Your task to perform on an android device: turn off picture-in-picture Image 0: 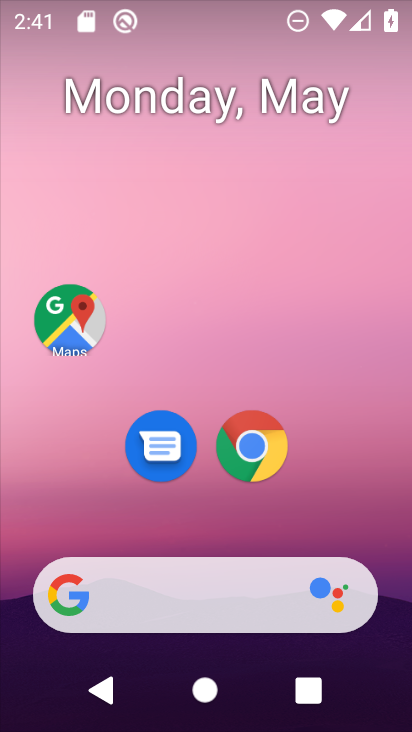
Step 0: click (250, 441)
Your task to perform on an android device: turn off picture-in-picture Image 1: 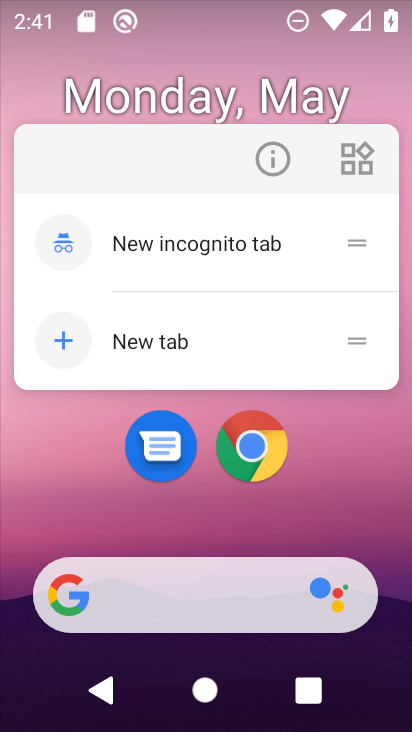
Step 1: click (268, 146)
Your task to perform on an android device: turn off picture-in-picture Image 2: 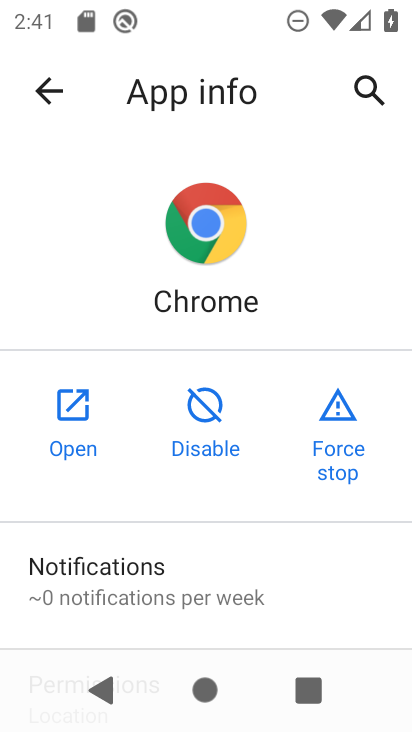
Step 2: drag from (222, 647) to (195, 262)
Your task to perform on an android device: turn off picture-in-picture Image 3: 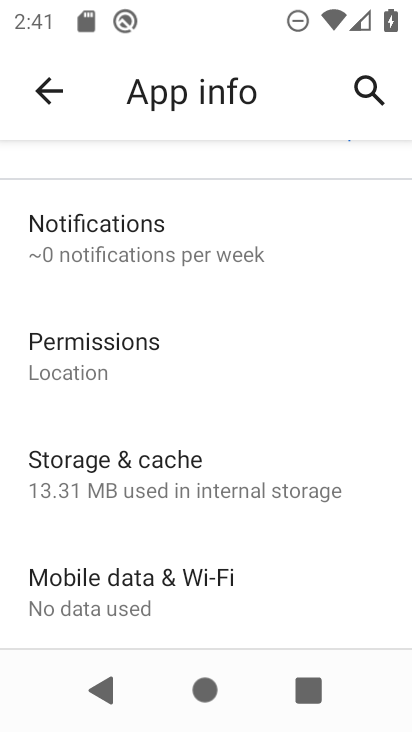
Step 3: drag from (183, 608) to (124, 310)
Your task to perform on an android device: turn off picture-in-picture Image 4: 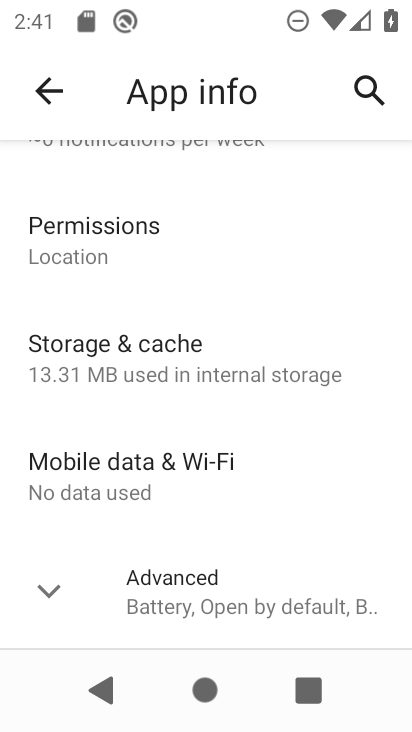
Step 4: click (160, 593)
Your task to perform on an android device: turn off picture-in-picture Image 5: 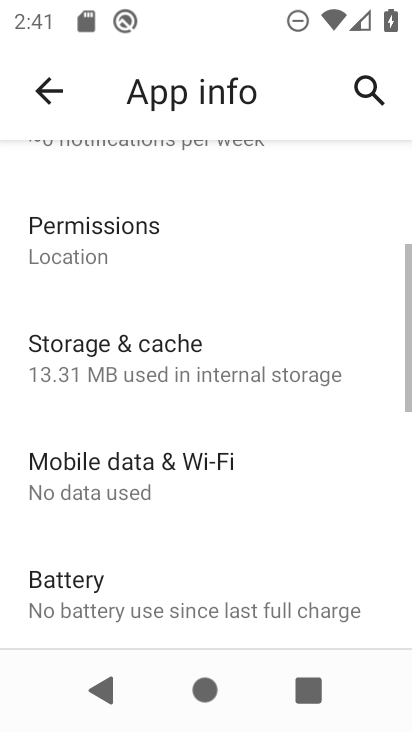
Step 5: drag from (160, 593) to (169, 207)
Your task to perform on an android device: turn off picture-in-picture Image 6: 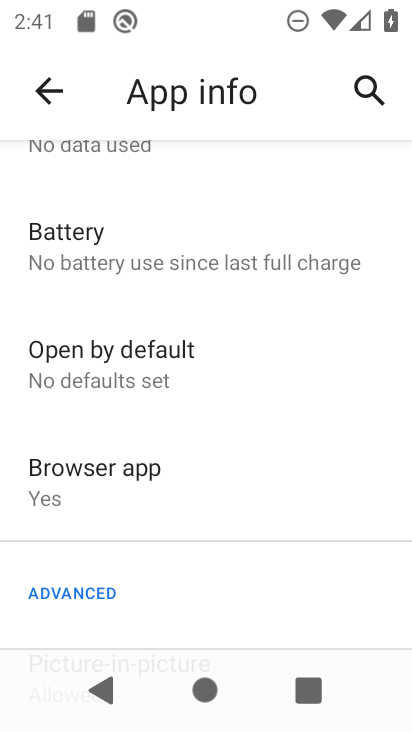
Step 6: drag from (196, 596) to (238, 182)
Your task to perform on an android device: turn off picture-in-picture Image 7: 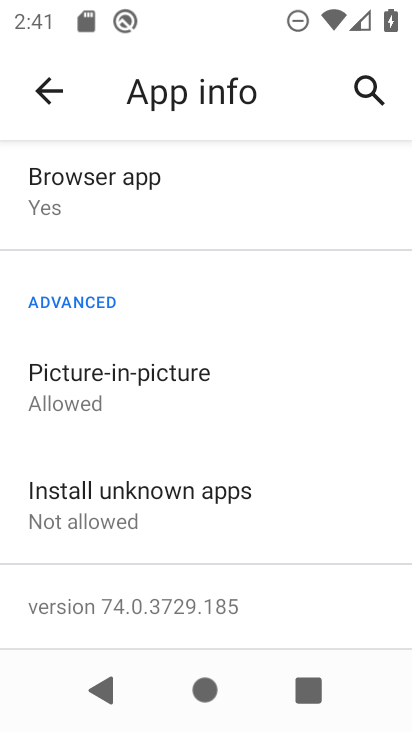
Step 7: click (139, 412)
Your task to perform on an android device: turn off picture-in-picture Image 8: 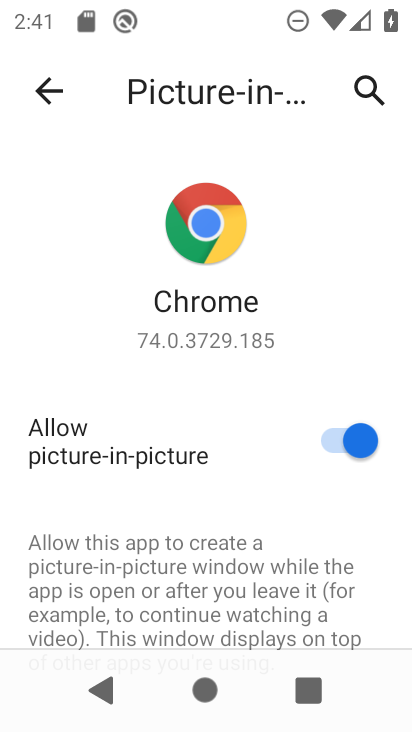
Step 8: click (336, 447)
Your task to perform on an android device: turn off picture-in-picture Image 9: 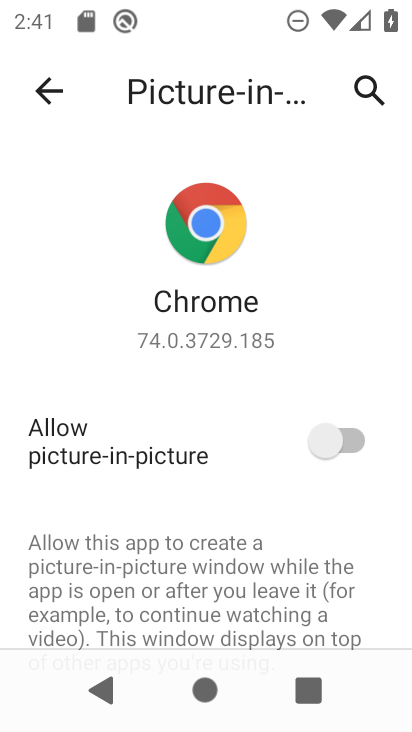
Step 9: task complete